Your task to perform on an android device: open device folders in google photos Image 0: 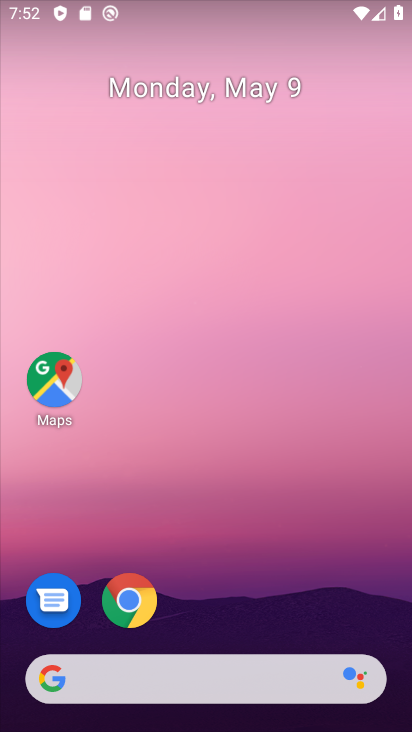
Step 0: drag from (231, 570) to (205, 35)
Your task to perform on an android device: open device folders in google photos Image 1: 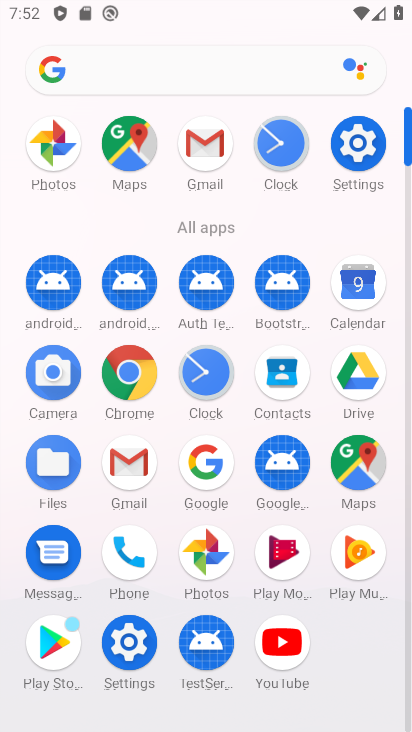
Step 1: drag from (4, 525) to (0, 290)
Your task to perform on an android device: open device folders in google photos Image 2: 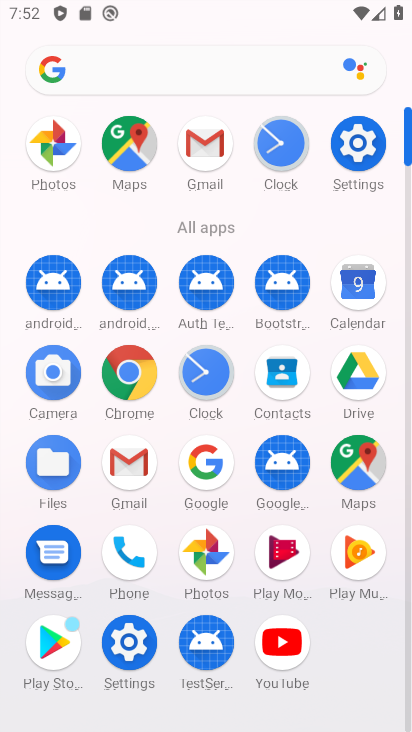
Step 2: click (202, 547)
Your task to perform on an android device: open device folders in google photos Image 3: 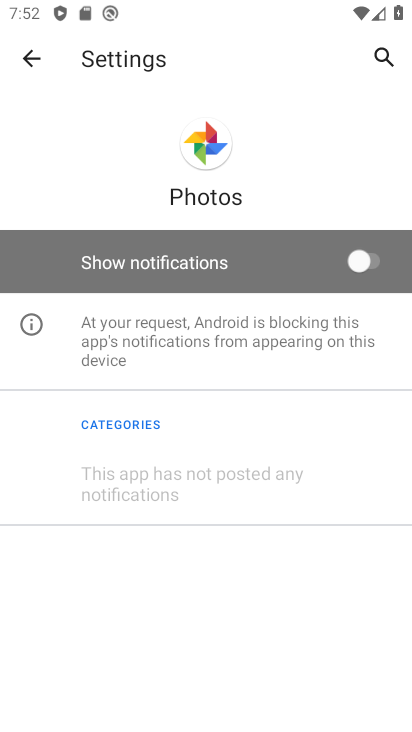
Step 3: click (40, 65)
Your task to perform on an android device: open device folders in google photos Image 4: 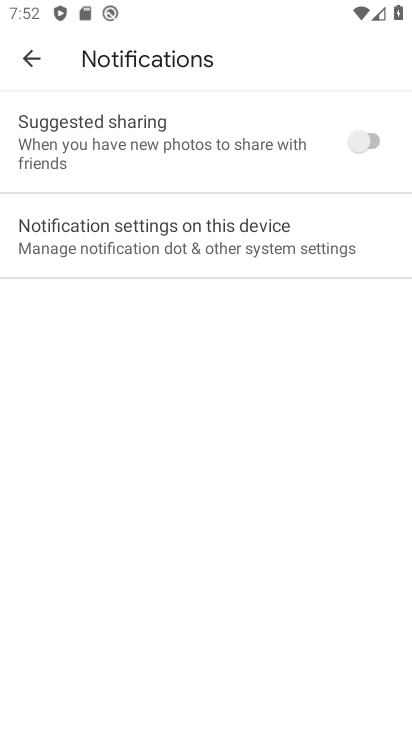
Step 4: click (30, 49)
Your task to perform on an android device: open device folders in google photos Image 5: 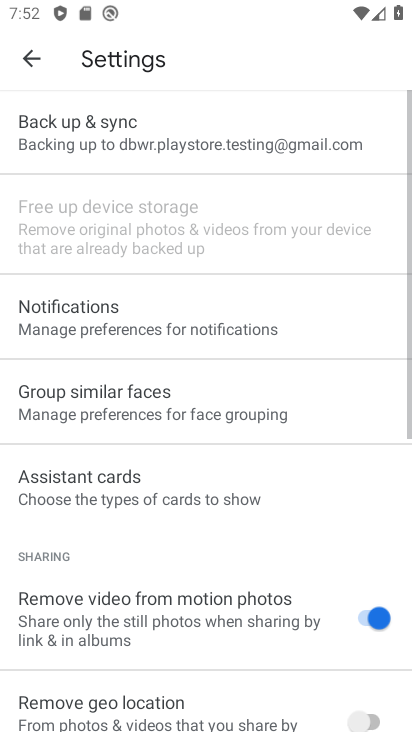
Step 5: click (30, 49)
Your task to perform on an android device: open device folders in google photos Image 6: 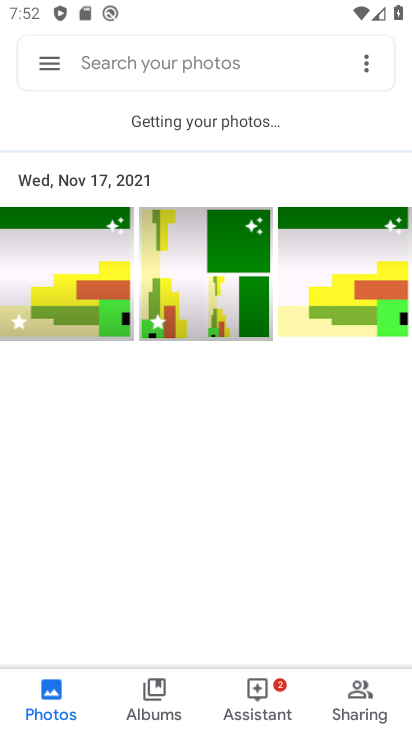
Step 6: click (38, 55)
Your task to perform on an android device: open device folders in google photos Image 7: 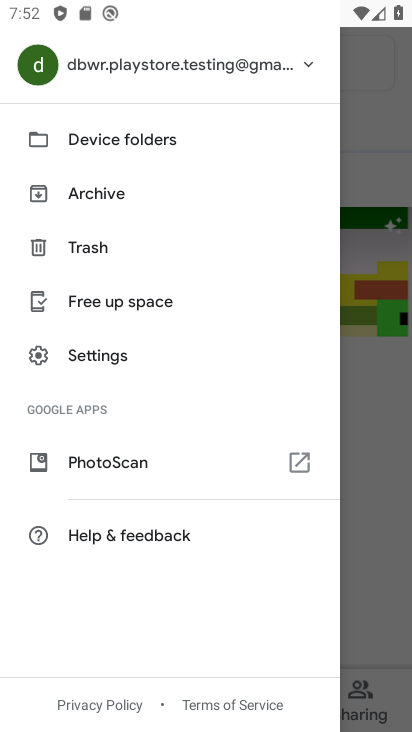
Step 7: click (96, 143)
Your task to perform on an android device: open device folders in google photos Image 8: 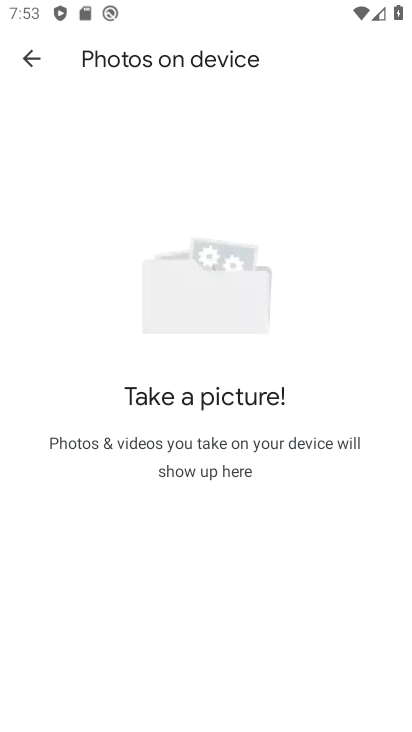
Step 8: task complete